Your task to perform on an android device: Go to notification settings Image 0: 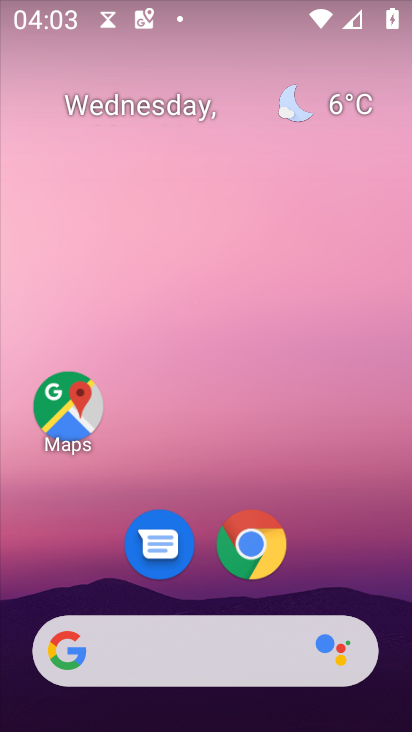
Step 0: drag from (297, 572) to (308, 17)
Your task to perform on an android device: Go to notification settings Image 1: 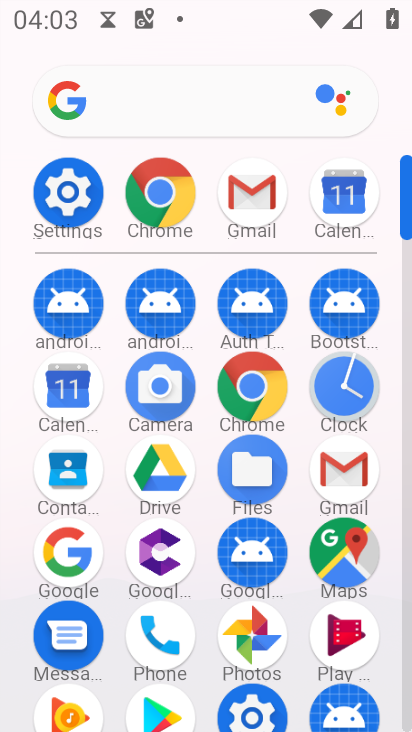
Step 1: click (56, 183)
Your task to perform on an android device: Go to notification settings Image 2: 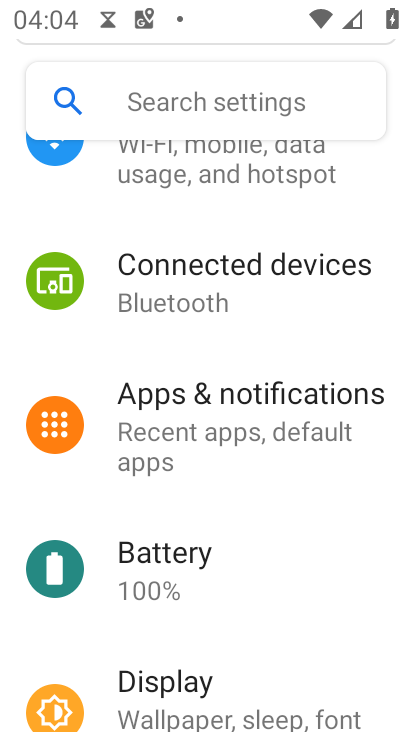
Step 2: click (205, 421)
Your task to perform on an android device: Go to notification settings Image 3: 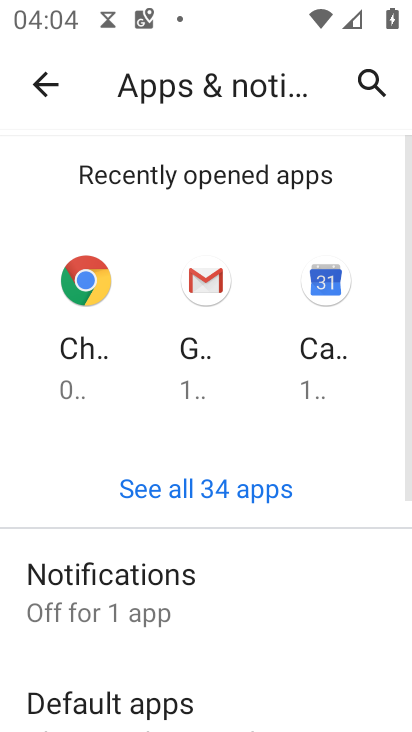
Step 3: click (171, 583)
Your task to perform on an android device: Go to notification settings Image 4: 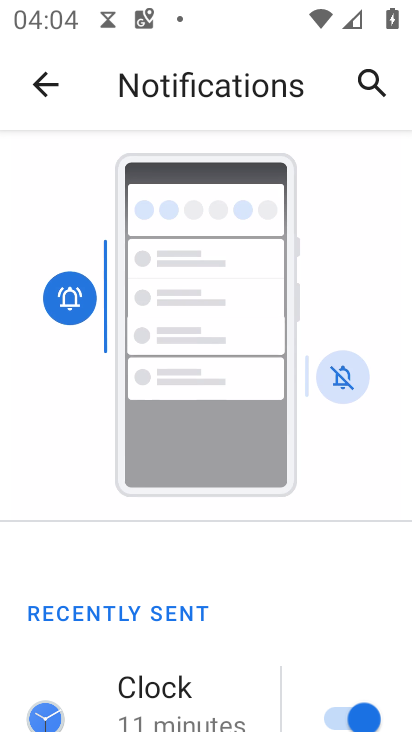
Step 4: task complete